Your task to perform on an android device: toggle data saver in the chrome app Image 0: 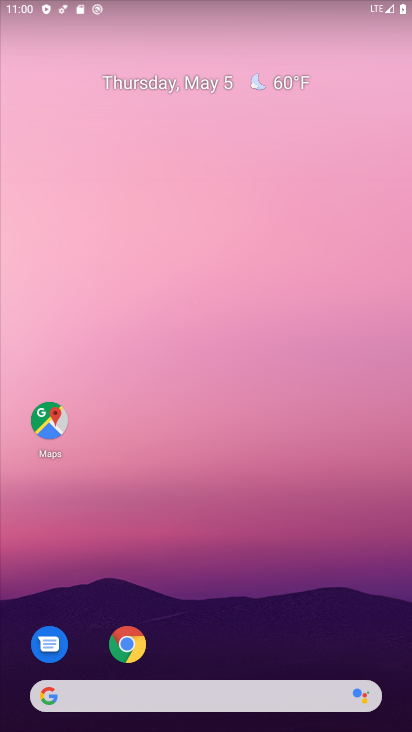
Step 0: drag from (378, 611) to (346, 79)
Your task to perform on an android device: toggle data saver in the chrome app Image 1: 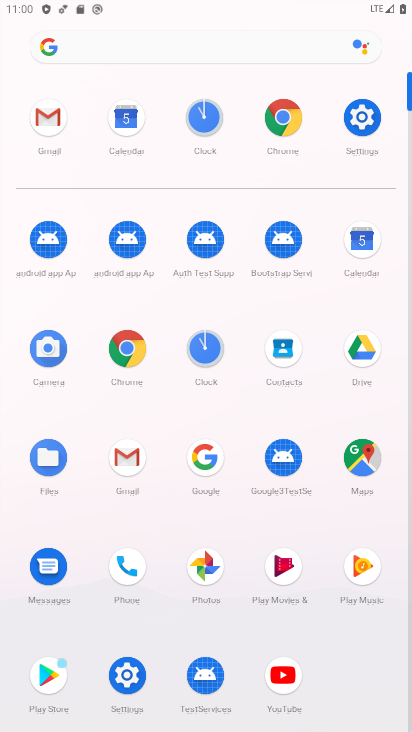
Step 1: click (137, 358)
Your task to perform on an android device: toggle data saver in the chrome app Image 2: 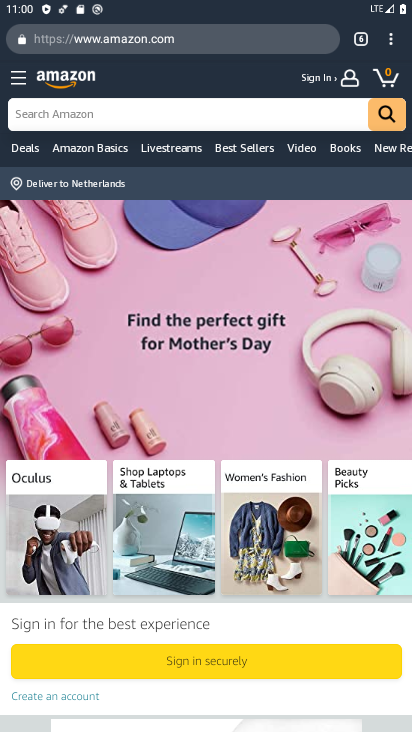
Step 2: drag from (394, 40) to (256, 432)
Your task to perform on an android device: toggle data saver in the chrome app Image 3: 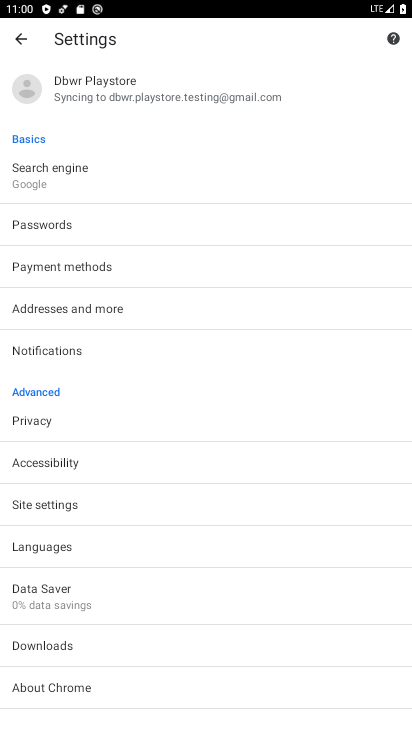
Step 3: click (48, 587)
Your task to perform on an android device: toggle data saver in the chrome app Image 4: 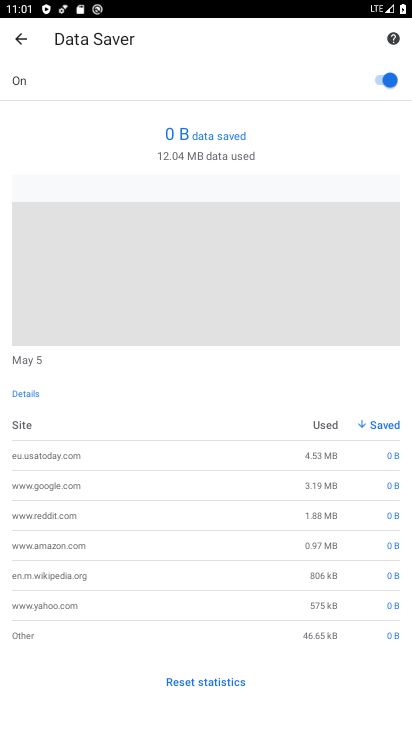
Step 4: click (380, 78)
Your task to perform on an android device: toggle data saver in the chrome app Image 5: 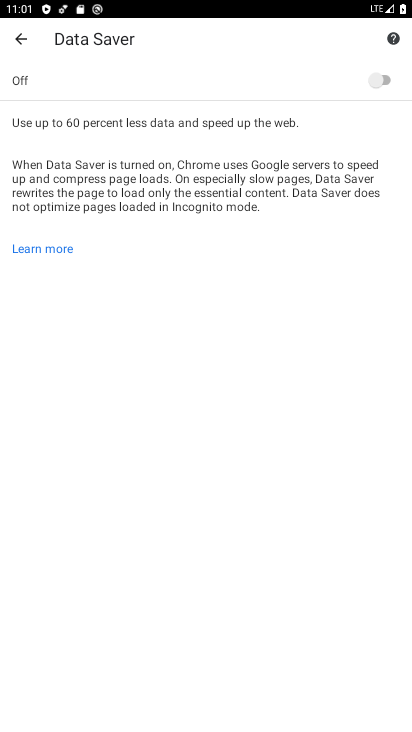
Step 5: task complete